Your task to perform on an android device: Open settings Image 0: 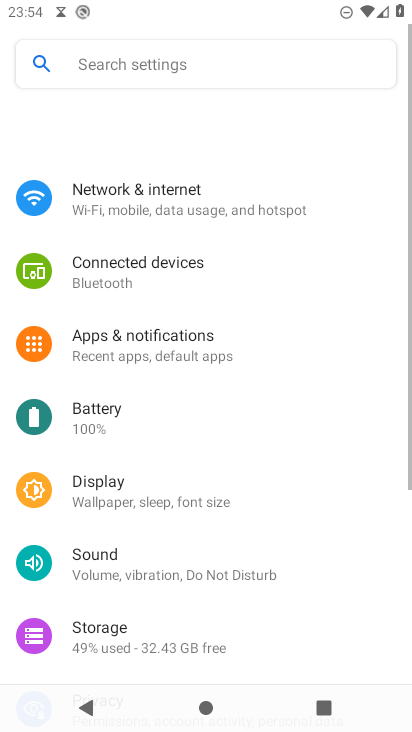
Step 0: press home button
Your task to perform on an android device: Open settings Image 1: 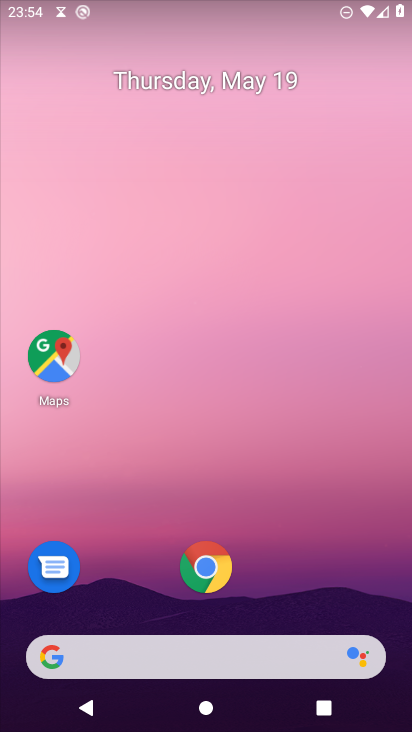
Step 1: drag from (250, 604) to (299, 47)
Your task to perform on an android device: Open settings Image 2: 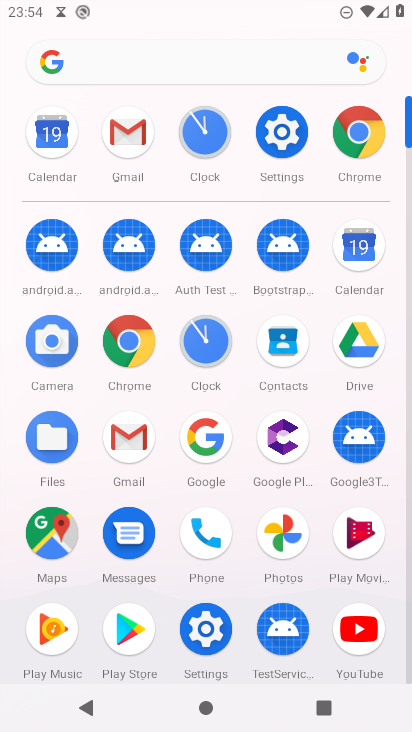
Step 2: click (279, 126)
Your task to perform on an android device: Open settings Image 3: 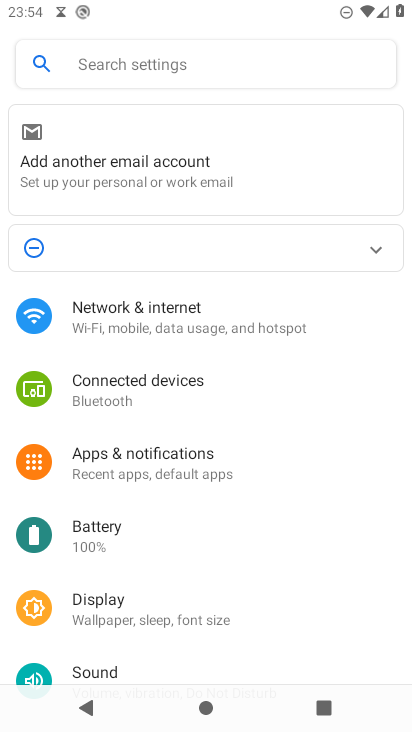
Step 3: task complete